Your task to perform on an android device: Open the calendar and show me this week's events? Image 0: 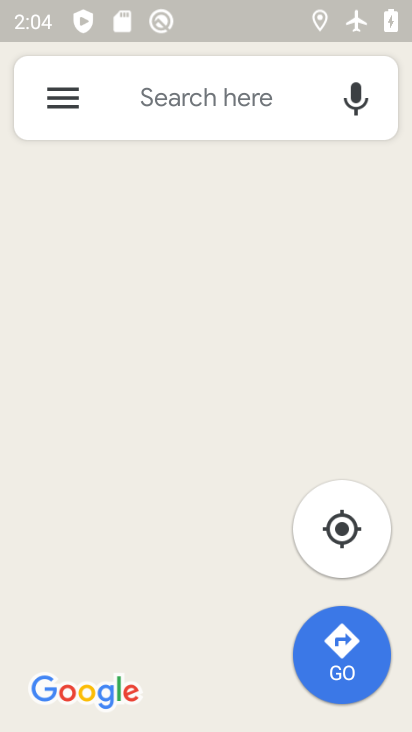
Step 0: press home button
Your task to perform on an android device: Open the calendar and show me this week's events? Image 1: 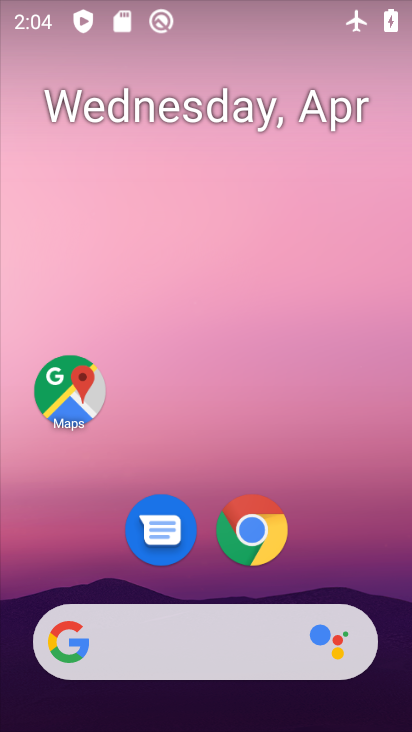
Step 1: drag from (342, 539) to (253, 144)
Your task to perform on an android device: Open the calendar and show me this week's events? Image 2: 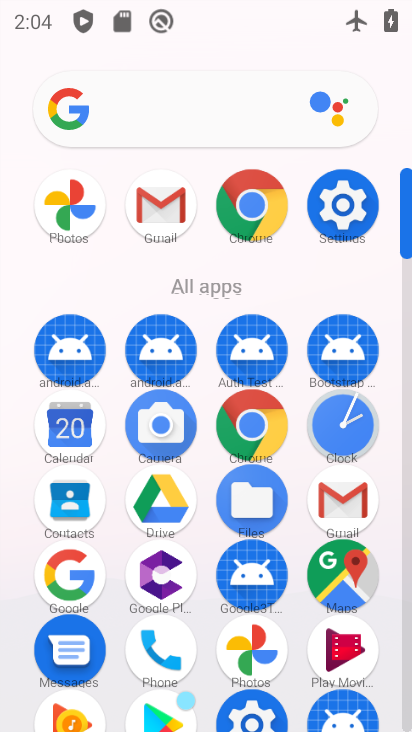
Step 2: click (79, 424)
Your task to perform on an android device: Open the calendar and show me this week's events? Image 3: 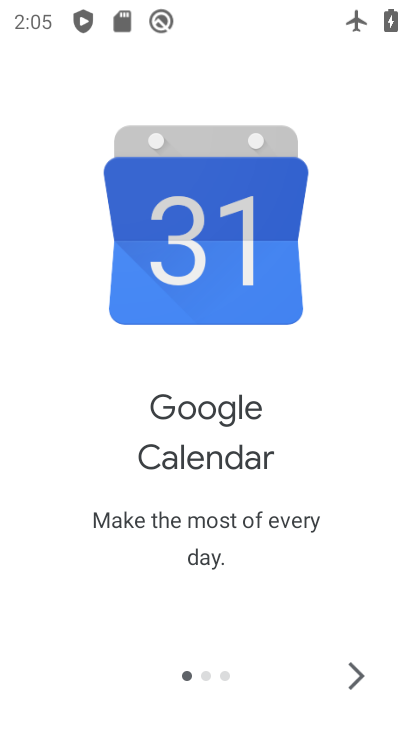
Step 3: click (344, 669)
Your task to perform on an android device: Open the calendar and show me this week's events? Image 4: 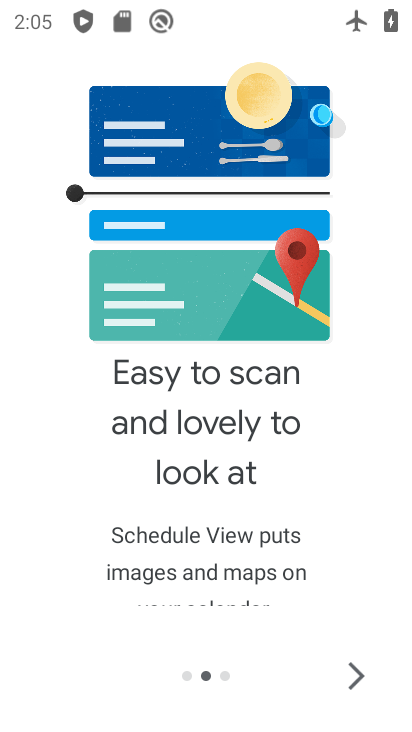
Step 4: click (344, 667)
Your task to perform on an android device: Open the calendar and show me this week's events? Image 5: 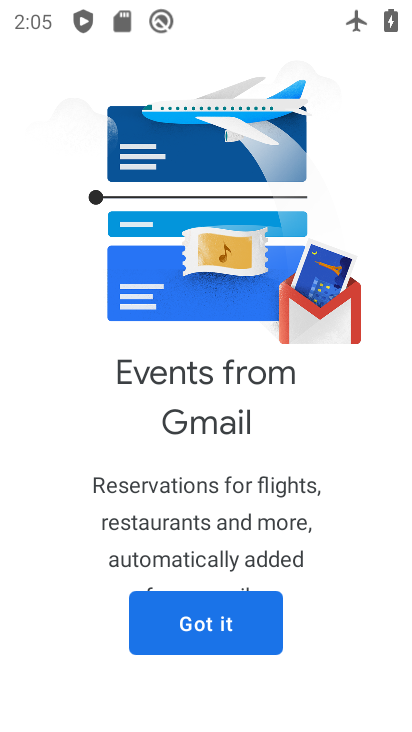
Step 5: click (220, 619)
Your task to perform on an android device: Open the calendar and show me this week's events? Image 6: 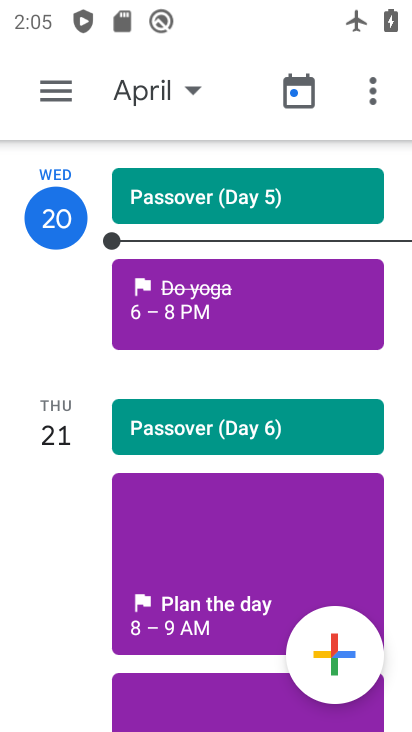
Step 6: click (56, 80)
Your task to perform on an android device: Open the calendar and show me this week's events? Image 7: 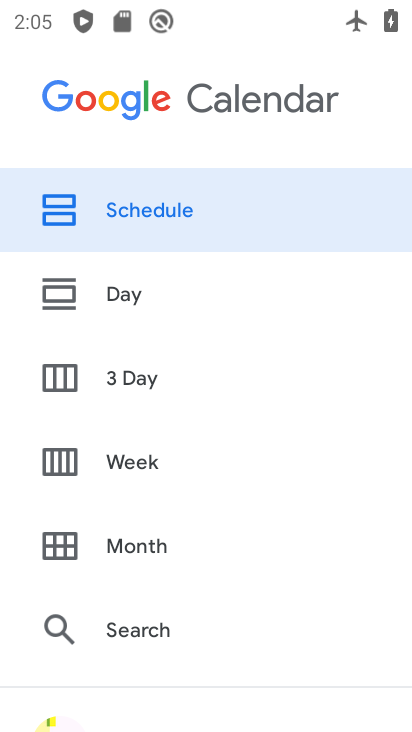
Step 7: click (117, 193)
Your task to perform on an android device: Open the calendar and show me this week's events? Image 8: 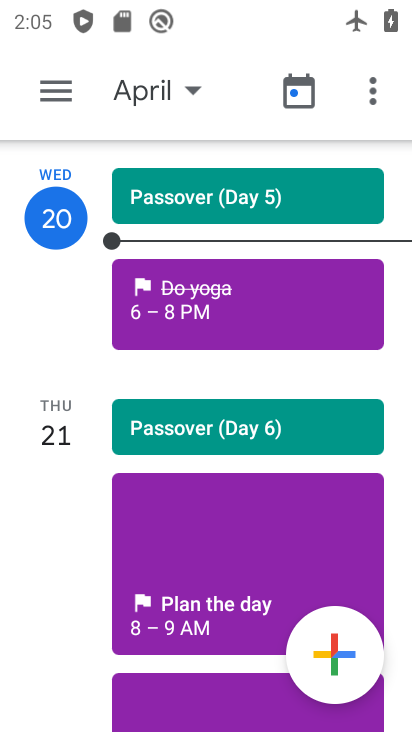
Step 8: click (128, 99)
Your task to perform on an android device: Open the calendar and show me this week's events? Image 9: 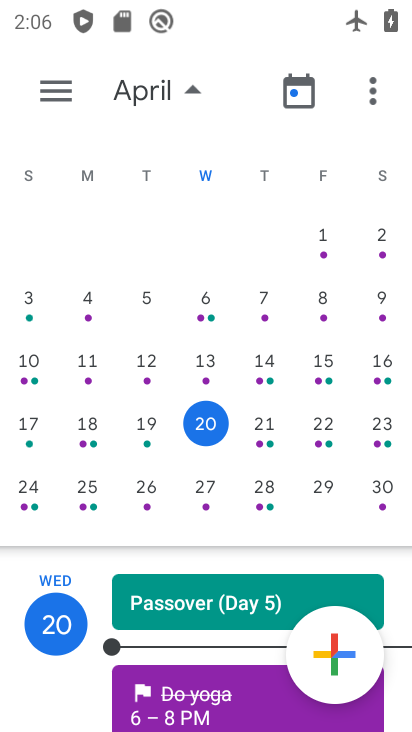
Step 9: click (209, 493)
Your task to perform on an android device: Open the calendar and show me this week's events? Image 10: 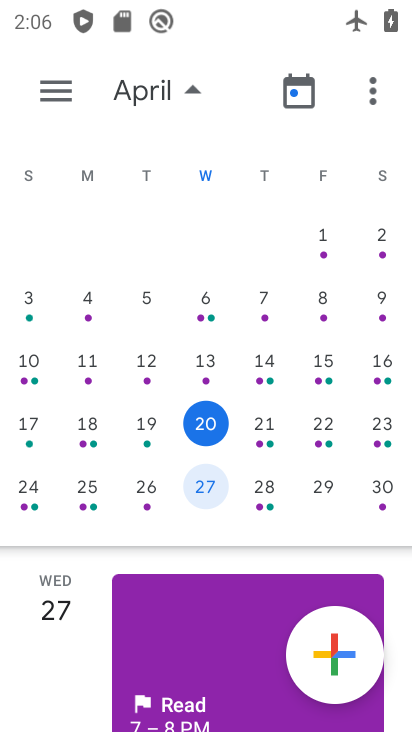
Step 10: task complete